Your task to perform on an android device: What's the weather? Image 0: 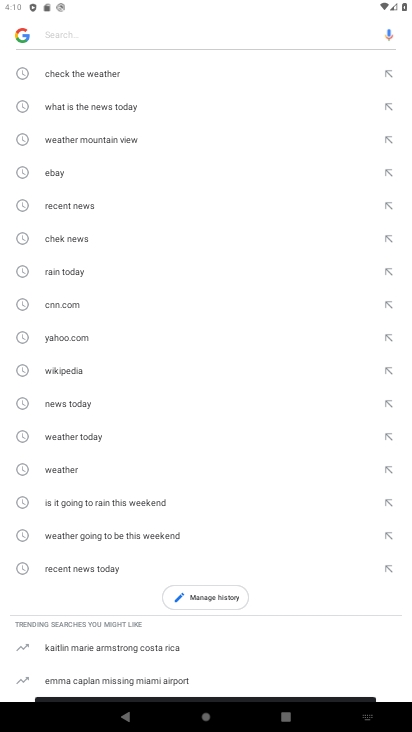
Step 0: press home button
Your task to perform on an android device: What's the weather? Image 1: 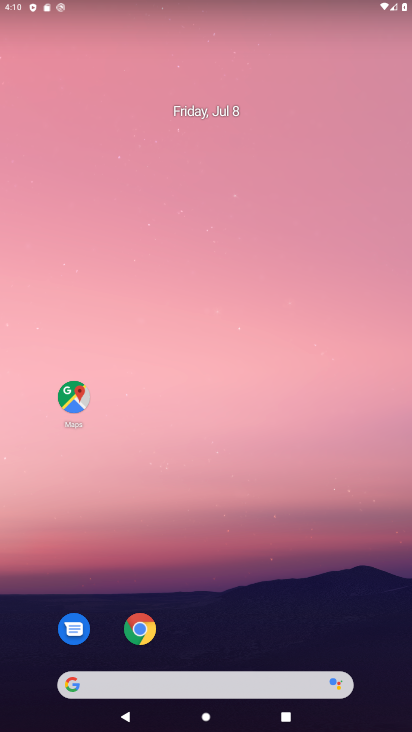
Step 1: drag from (302, 603) to (324, 92)
Your task to perform on an android device: What's the weather? Image 2: 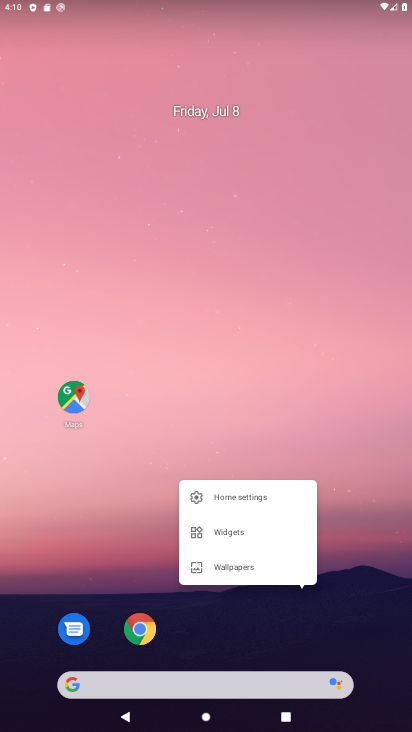
Step 2: click (178, 304)
Your task to perform on an android device: What's the weather? Image 3: 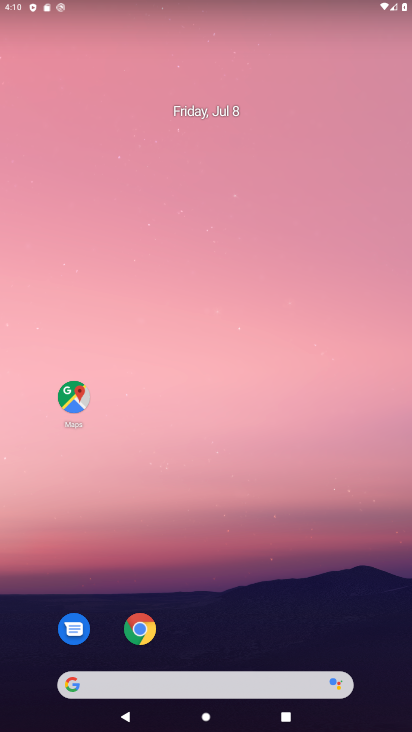
Step 3: click (196, 674)
Your task to perform on an android device: What's the weather? Image 4: 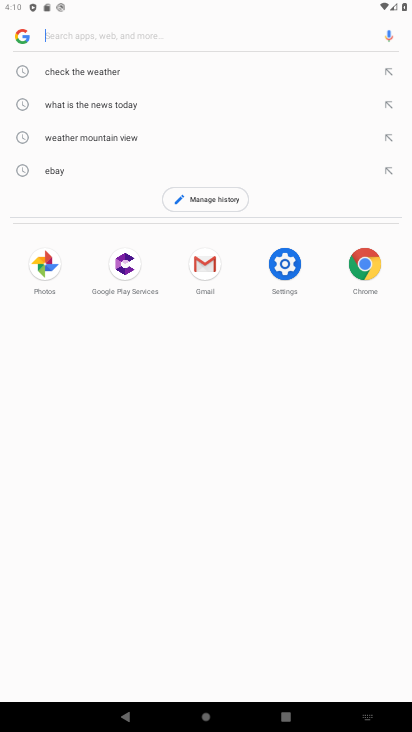
Step 4: click (159, 85)
Your task to perform on an android device: What's the weather? Image 5: 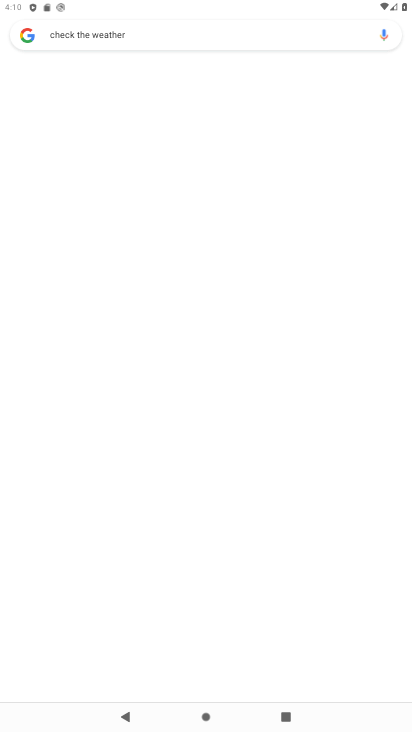
Step 5: task complete